Your task to perform on an android device: Open Reddit.com Image 0: 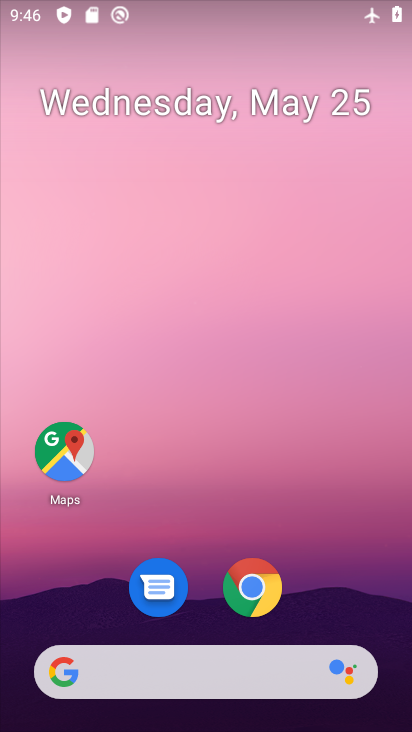
Step 0: click (250, 600)
Your task to perform on an android device: Open Reddit.com Image 1: 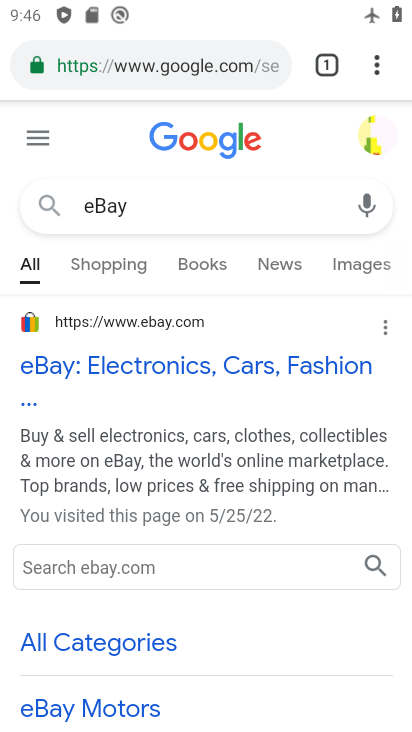
Step 1: click (181, 73)
Your task to perform on an android device: Open Reddit.com Image 2: 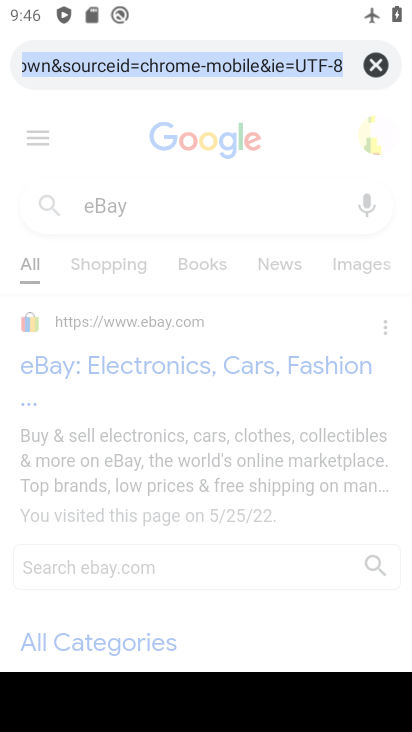
Step 2: type "Reddit.com"
Your task to perform on an android device: Open Reddit.com Image 3: 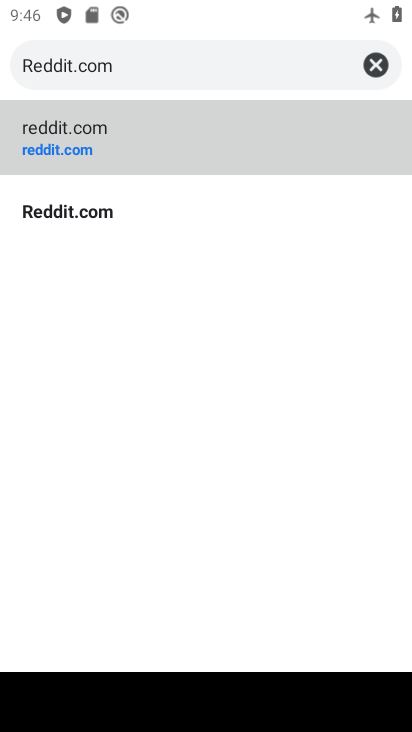
Step 3: drag from (273, 27) to (294, 510)
Your task to perform on an android device: Open Reddit.com Image 4: 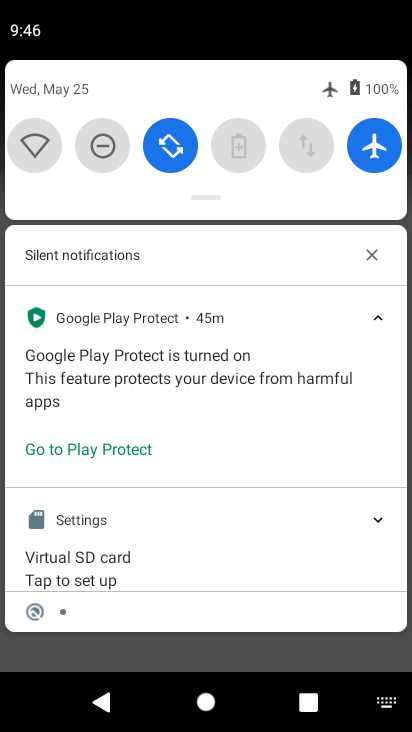
Step 4: click (364, 153)
Your task to perform on an android device: Open Reddit.com Image 5: 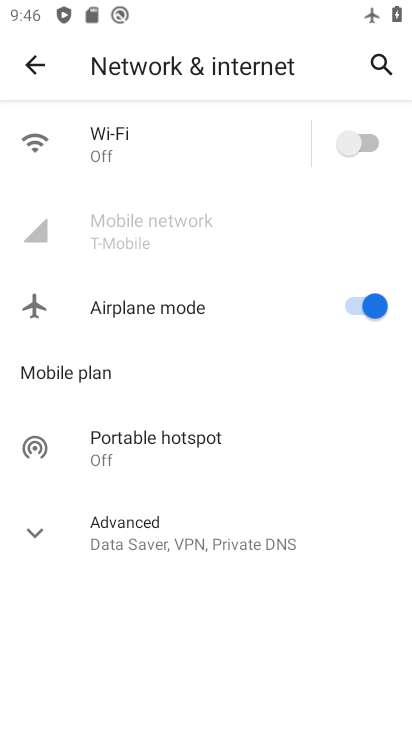
Step 5: click (347, 306)
Your task to perform on an android device: Open Reddit.com Image 6: 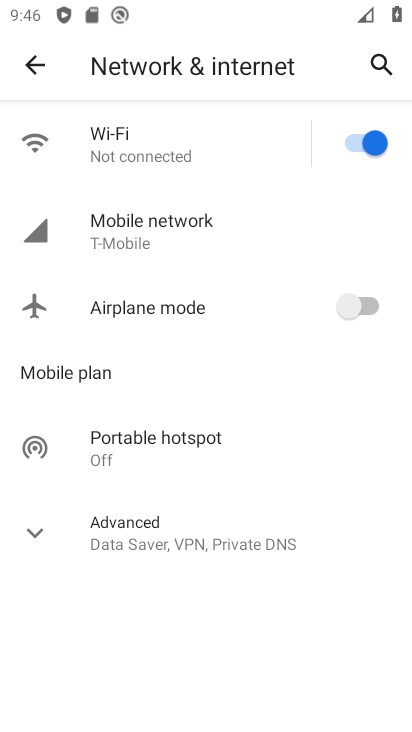
Step 6: press back button
Your task to perform on an android device: Open Reddit.com Image 7: 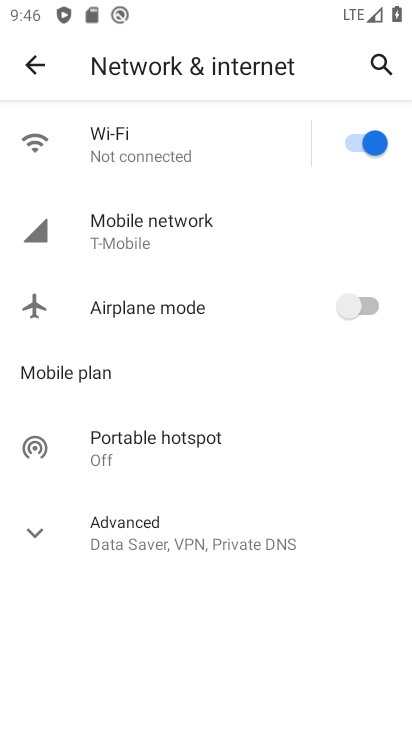
Step 7: press back button
Your task to perform on an android device: Open Reddit.com Image 8: 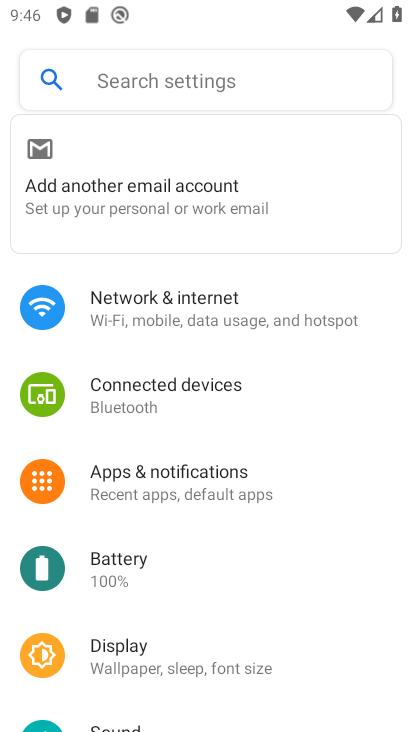
Step 8: press back button
Your task to perform on an android device: Open Reddit.com Image 9: 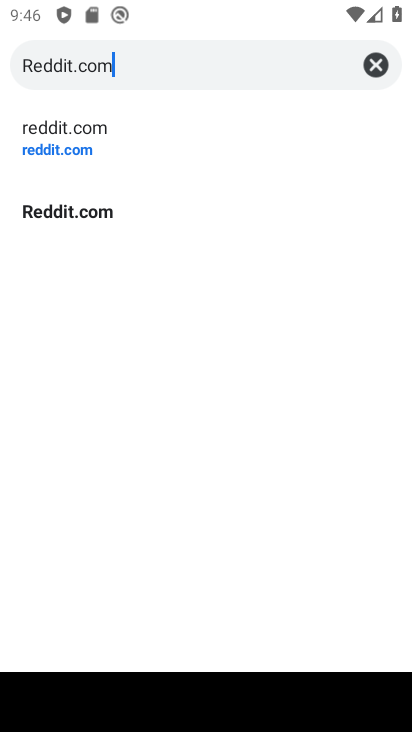
Step 9: click (71, 160)
Your task to perform on an android device: Open Reddit.com Image 10: 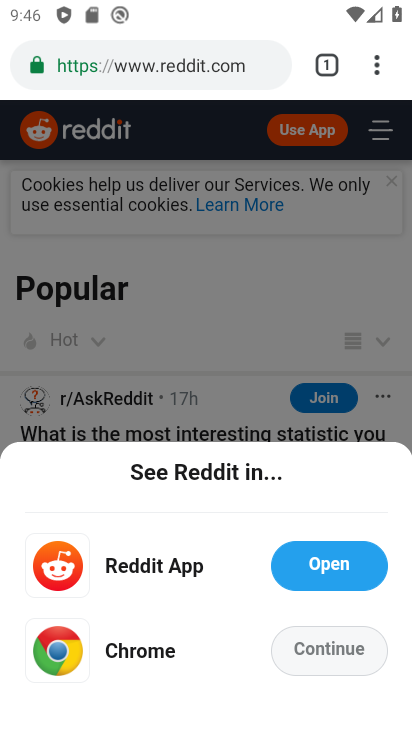
Step 10: task complete